Your task to perform on an android device: install app "Expedia: Hotels, Flights & Car" Image 0: 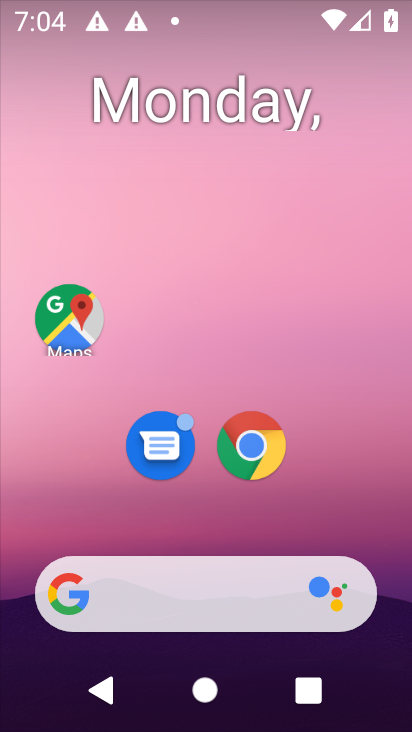
Step 0: drag from (387, 617) to (267, 85)
Your task to perform on an android device: install app "Expedia: Hotels, Flights & Car" Image 1: 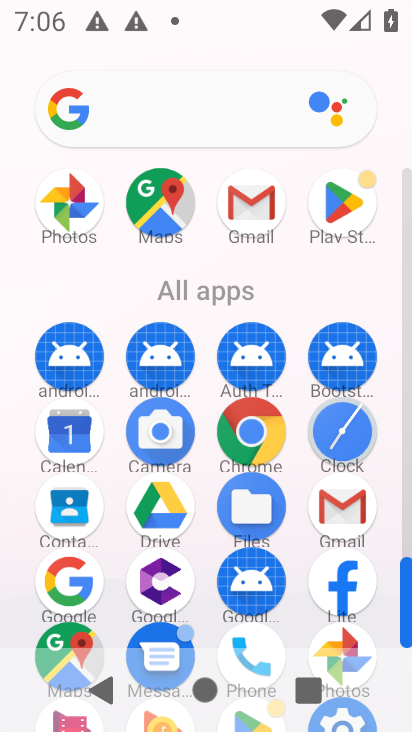
Step 1: click (348, 212)
Your task to perform on an android device: install app "Expedia: Hotels, Flights & Car" Image 2: 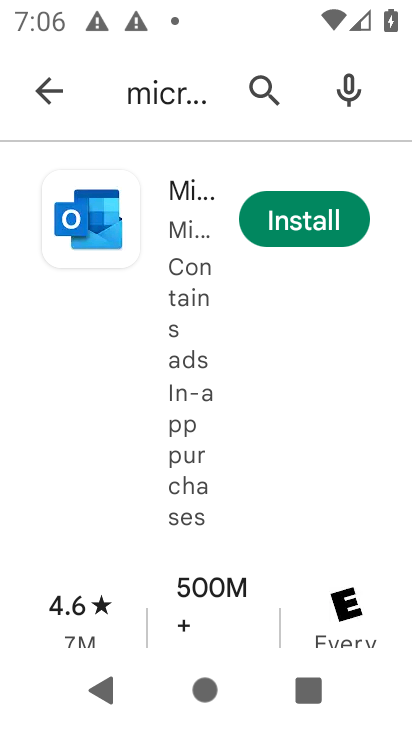
Step 2: press back button
Your task to perform on an android device: install app "Expedia: Hotels, Flights & Car" Image 3: 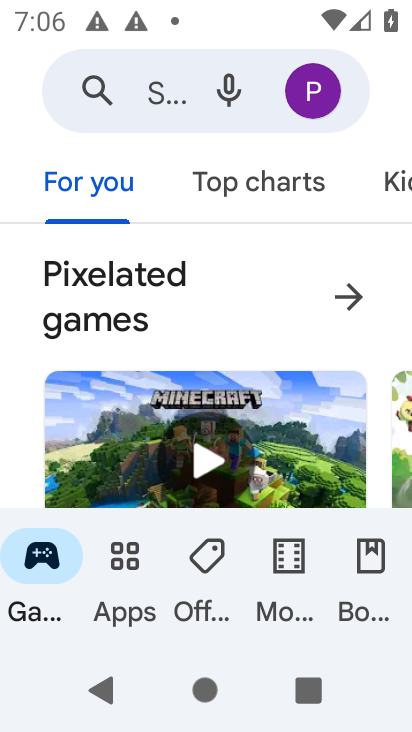
Step 3: click (173, 88)
Your task to perform on an android device: install app "Expedia: Hotels, Flights & Car" Image 4: 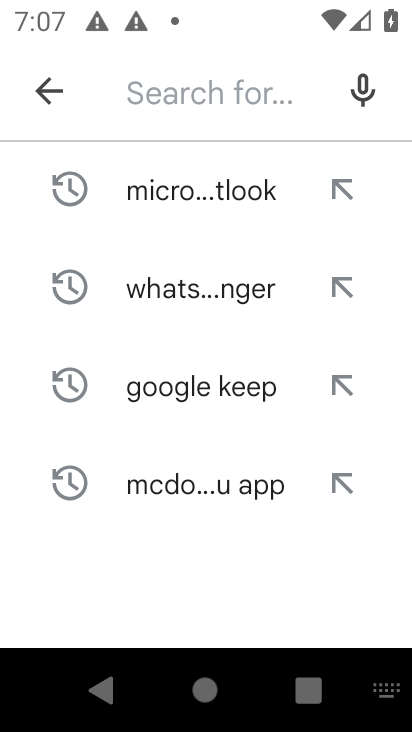
Step 4: type "Expedia: Hotels, Flights & Car"
Your task to perform on an android device: install app "Expedia: Hotels, Flights & Car" Image 5: 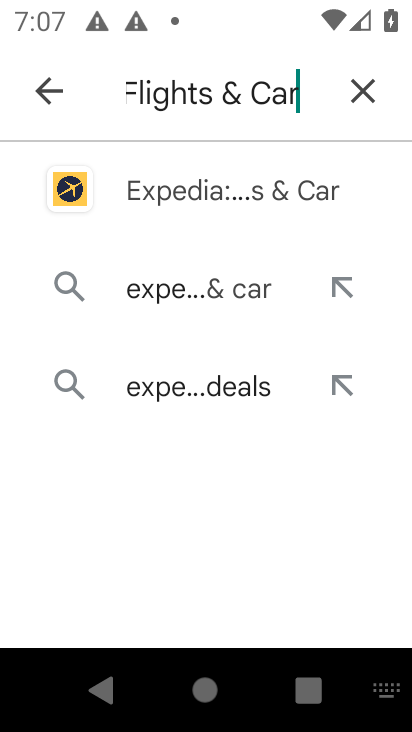
Step 5: click (182, 201)
Your task to perform on an android device: install app "Expedia: Hotels, Flights & Car" Image 6: 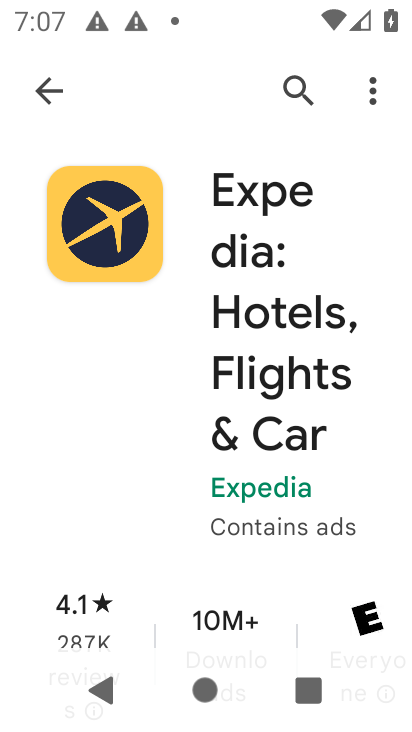
Step 6: drag from (241, 519) to (236, 101)
Your task to perform on an android device: install app "Expedia: Hotels, Flights & Car" Image 7: 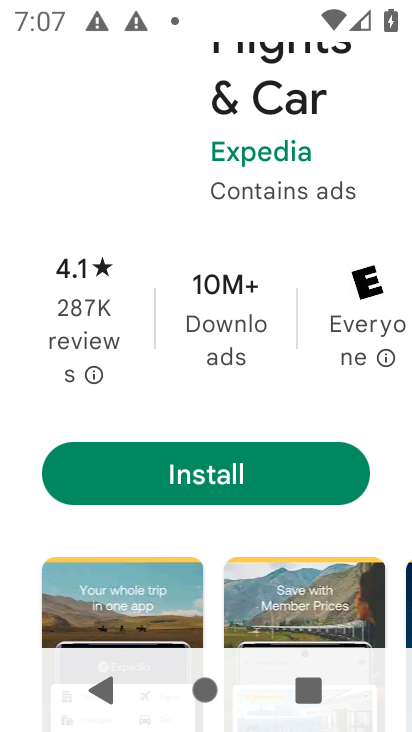
Step 7: click (161, 480)
Your task to perform on an android device: install app "Expedia: Hotels, Flights & Car" Image 8: 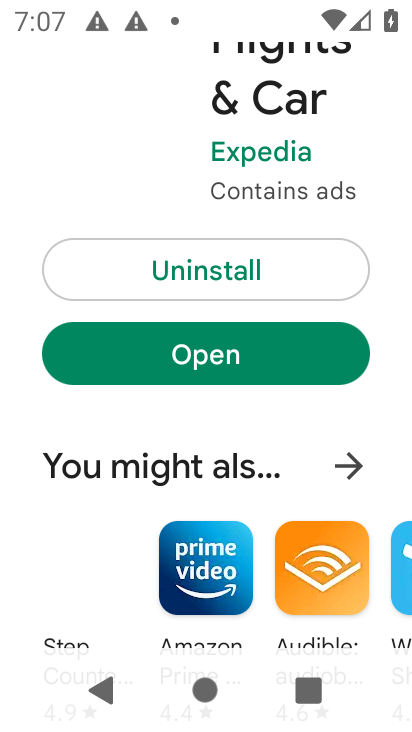
Step 8: task complete